Your task to perform on an android device: toggle location history Image 0: 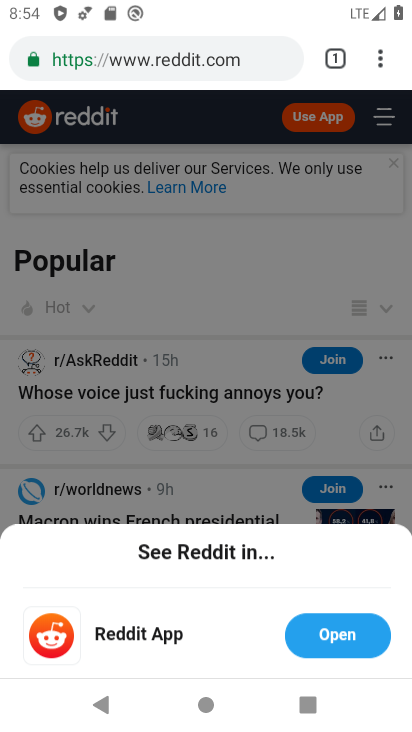
Step 0: press home button
Your task to perform on an android device: toggle location history Image 1: 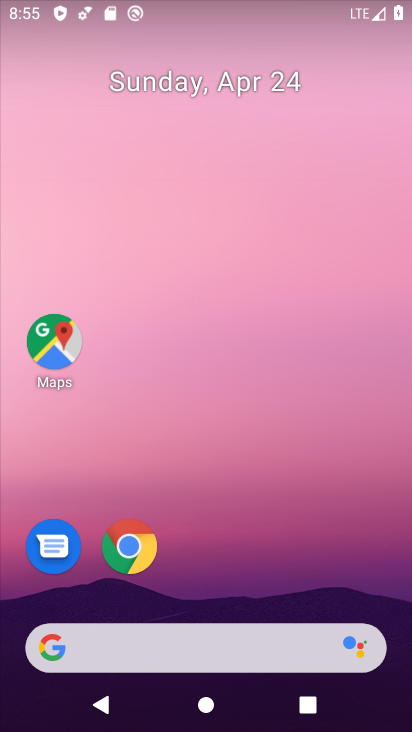
Step 1: drag from (274, 542) to (247, 82)
Your task to perform on an android device: toggle location history Image 2: 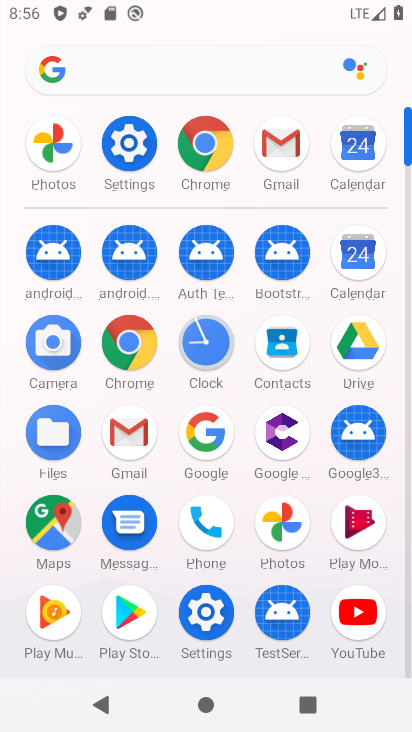
Step 2: click (211, 627)
Your task to perform on an android device: toggle location history Image 3: 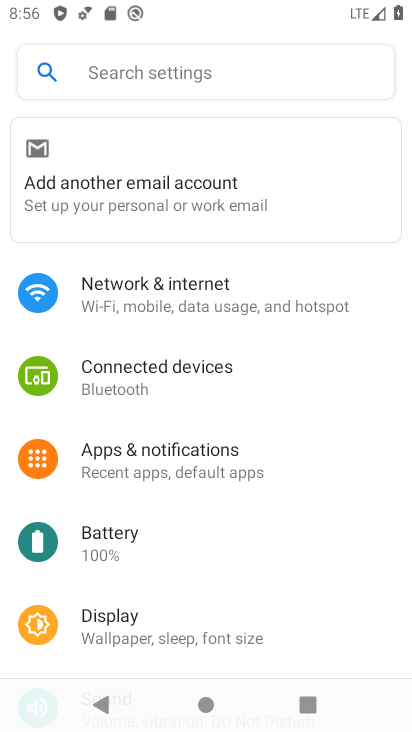
Step 3: drag from (172, 521) to (210, 138)
Your task to perform on an android device: toggle location history Image 4: 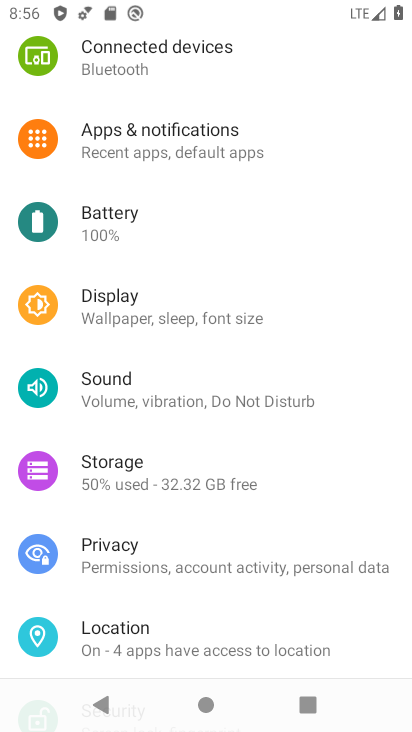
Step 4: click (190, 611)
Your task to perform on an android device: toggle location history Image 5: 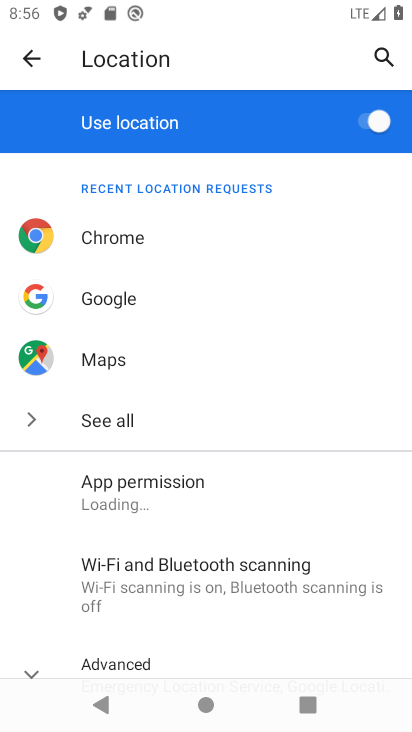
Step 5: drag from (213, 587) to (233, 138)
Your task to perform on an android device: toggle location history Image 6: 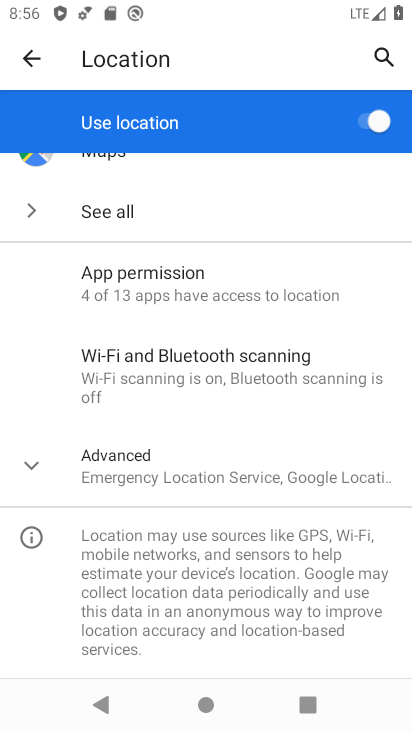
Step 6: click (223, 477)
Your task to perform on an android device: toggle location history Image 7: 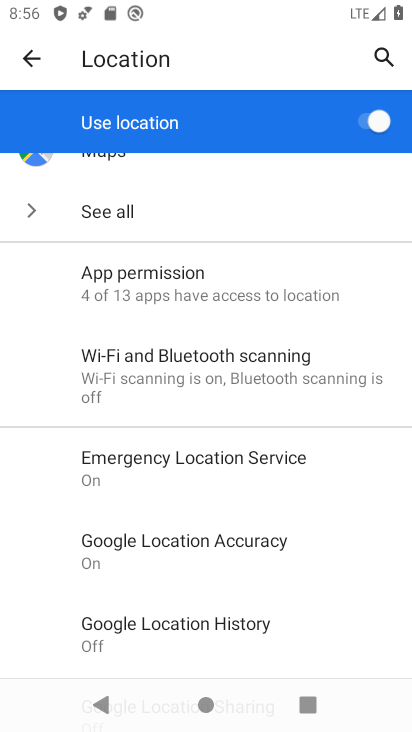
Step 7: click (236, 623)
Your task to perform on an android device: toggle location history Image 8: 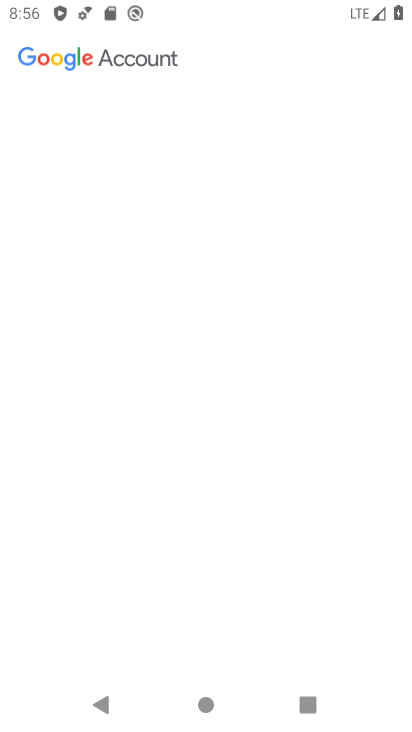
Step 8: task complete